Your task to perform on an android device: Open eBay Image 0: 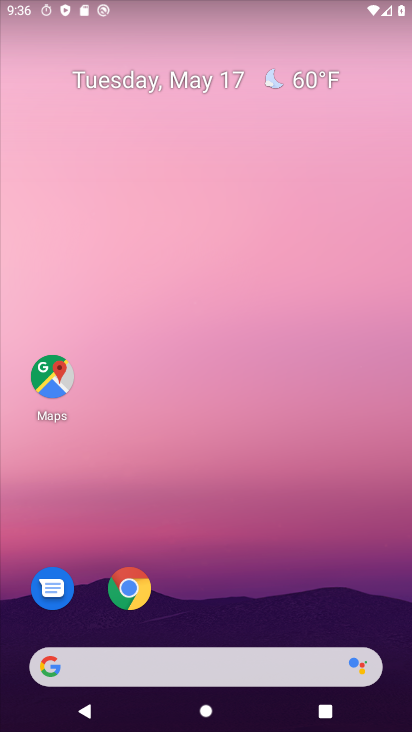
Step 0: drag from (309, 618) to (206, 21)
Your task to perform on an android device: Open eBay Image 1: 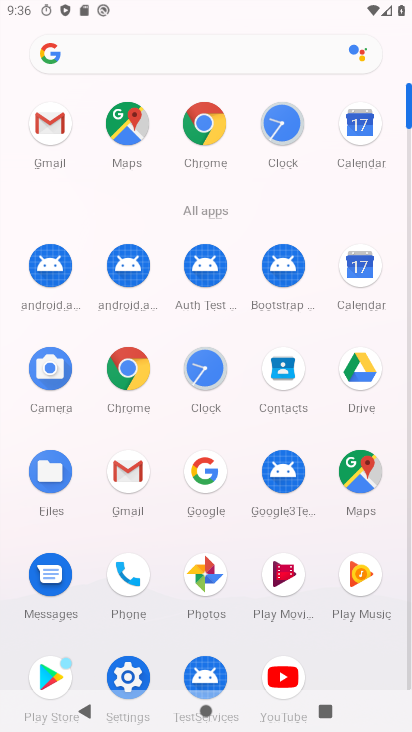
Step 1: click (201, 121)
Your task to perform on an android device: Open eBay Image 2: 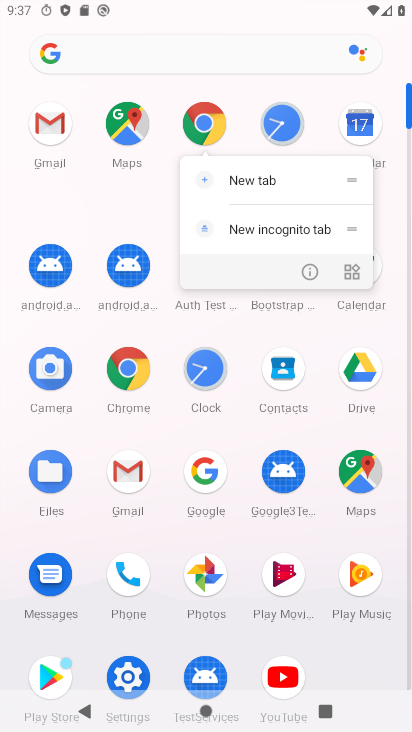
Step 2: click (207, 115)
Your task to perform on an android device: Open eBay Image 3: 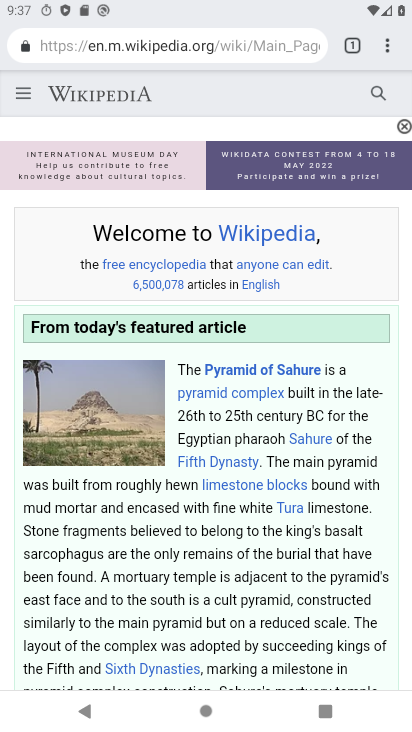
Step 3: click (214, 108)
Your task to perform on an android device: Open eBay Image 4: 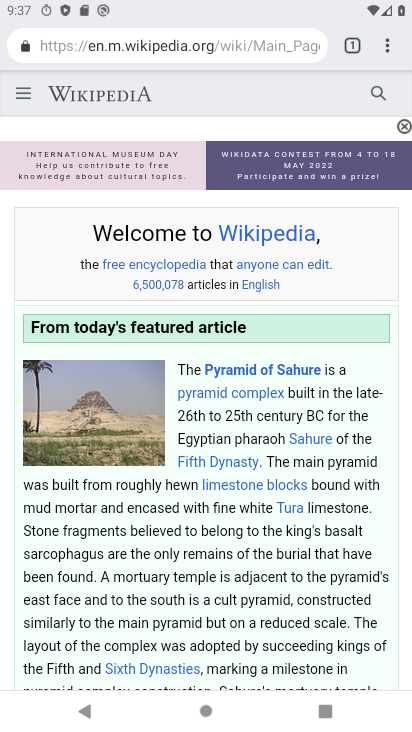
Step 4: press back button
Your task to perform on an android device: Open eBay Image 5: 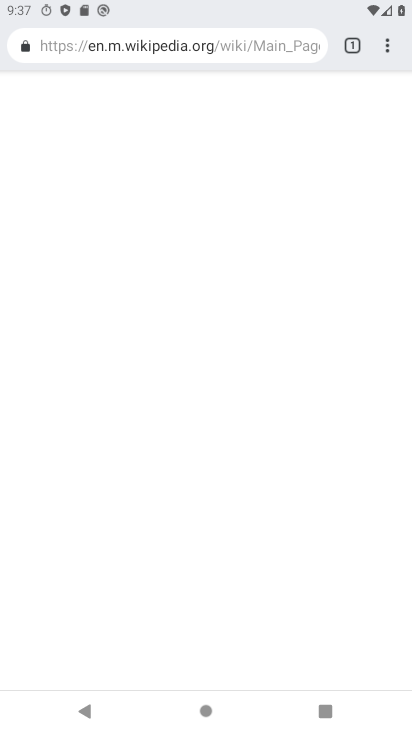
Step 5: press back button
Your task to perform on an android device: Open eBay Image 6: 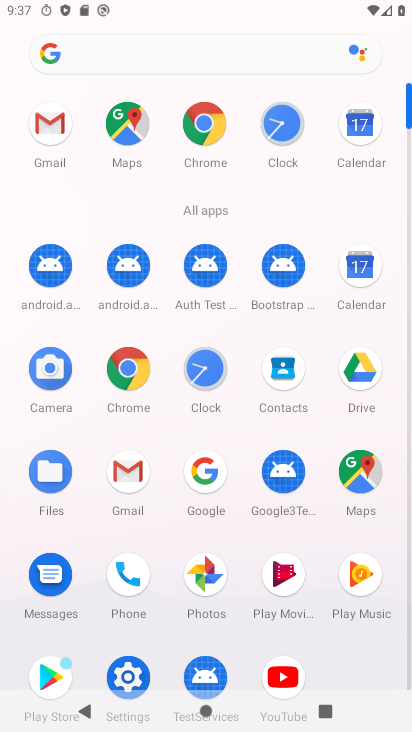
Step 6: click (203, 119)
Your task to perform on an android device: Open eBay Image 7: 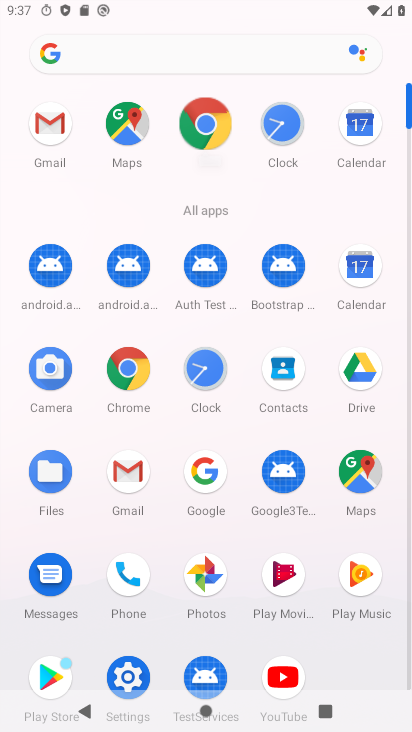
Step 7: click (207, 120)
Your task to perform on an android device: Open eBay Image 8: 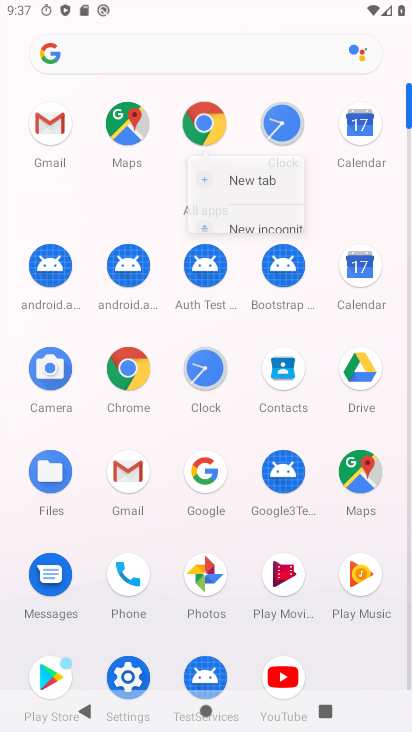
Step 8: click (207, 120)
Your task to perform on an android device: Open eBay Image 9: 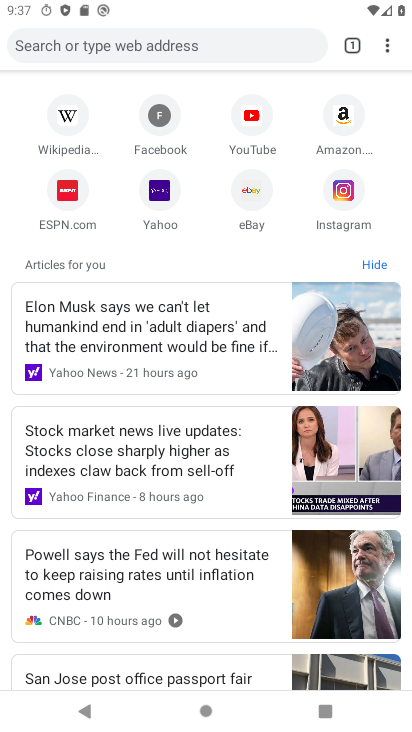
Step 9: click (253, 187)
Your task to perform on an android device: Open eBay Image 10: 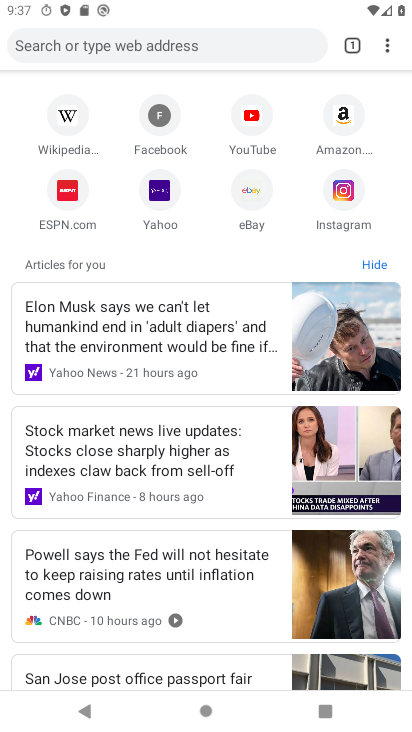
Step 10: click (253, 187)
Your task to perform on an android device: Open eBay Image 11: 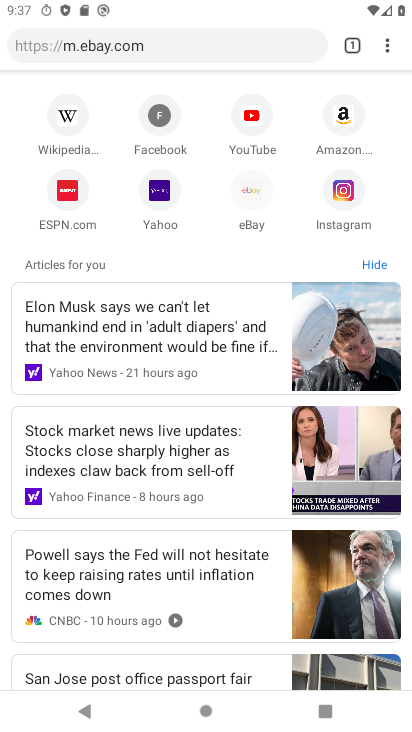
Step 11: click (252, 188)
Your task to perform on an android device: Open eBay Image 12: 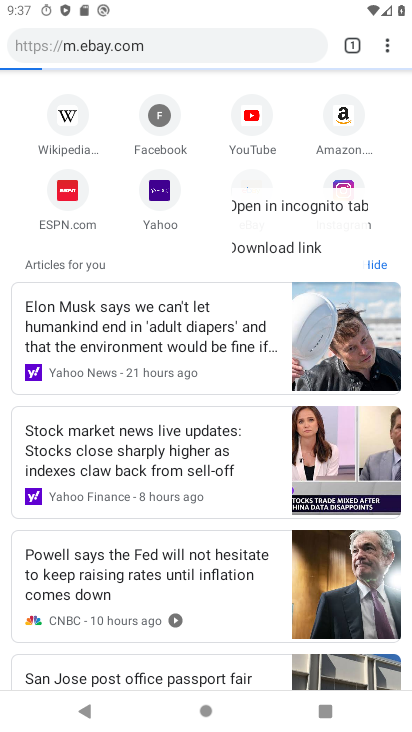
Step 12: click (252, 188)
Your task to perform on an android device: Open eBay Image 13: 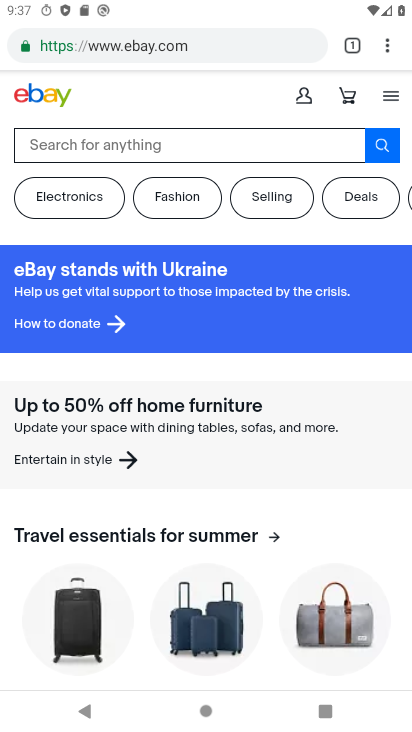
Step 13: task complete